Your task to perform on an android device: open app "Gmail" (install if not already installed), go to login, and select forgot password Image 0: 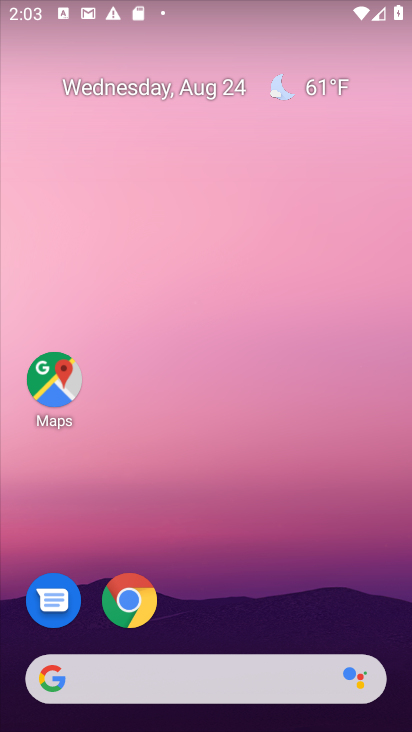
Step 0: drag from (226, 615) to (235, 0)
Your task to perform on an android device: open app "Gmail" (install if not already installed), go to login, and select forgot password Image 1: 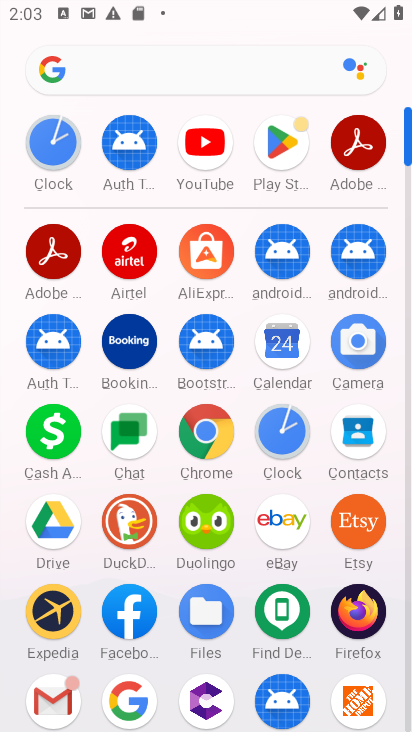
Step 1: click (68, 708)
Your task to perform on an android device: open app "Gmail" (install if not already installed), go to login, and select forgot password Image 2: 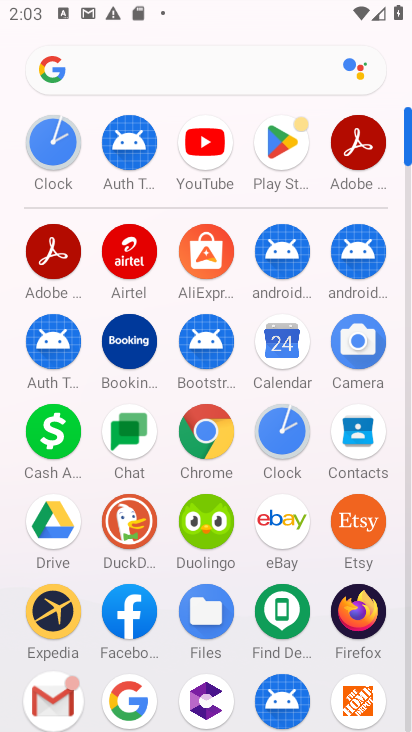
Step 2: task complete